Your task to perform on an android device: open a bookmark in the chrome app Image 0: 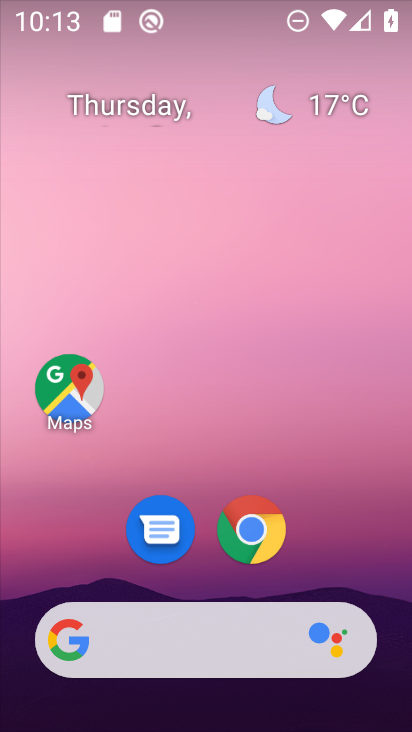
Step 0: click (255, 528)
Your task to perform on an android device: open a bookmark in the chrome app Image 1: 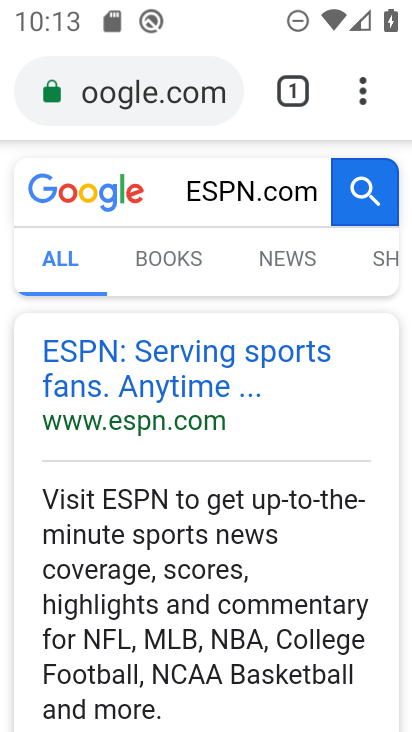
Step 1: click (361, 89)
Your task to perform on an android device: open a bookmark in the chrome app Image 2: 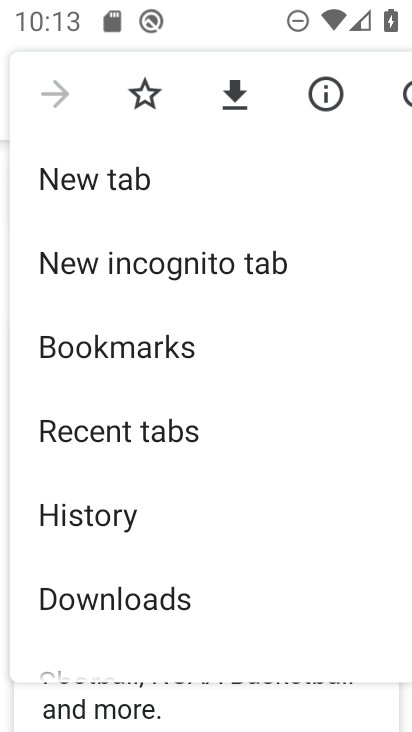
Step 2: click (93, 349)
Your task to perform on an android device: open a bookmark in the chrome app Image 3: 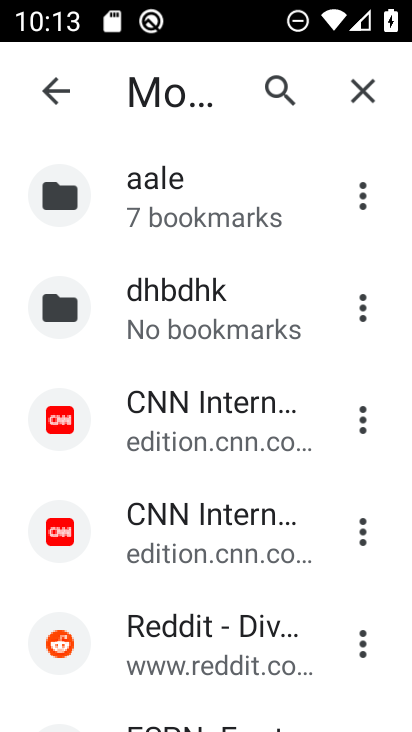
Step 3: click (171, 312)
Your task to perform on an android device: open a bookmark in the chrome app Image 4: 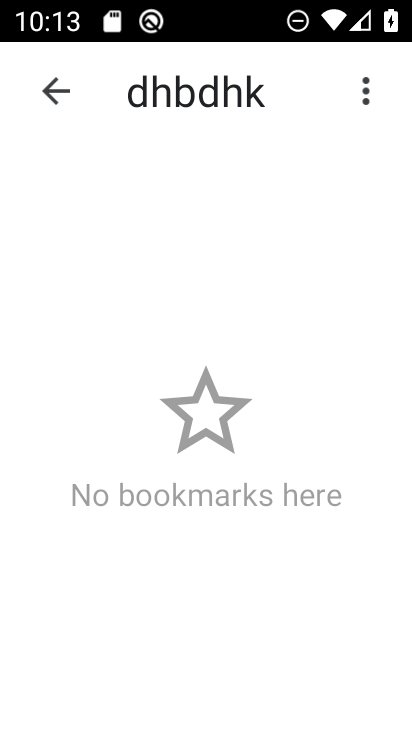
Step 4: click (62, 96)
Your task to perform on an android device: open a bookmark in the chrome app Image 5: 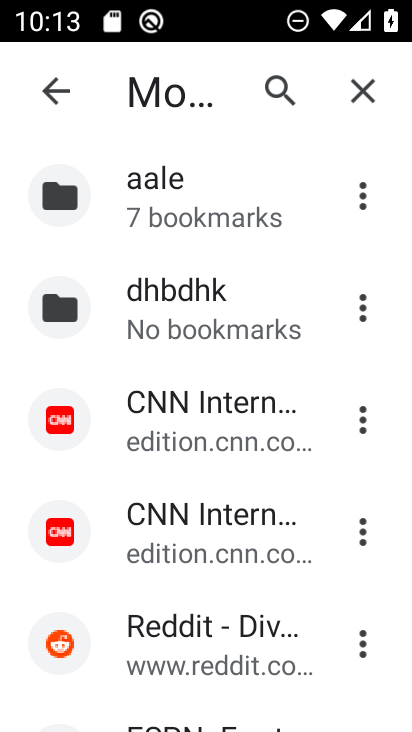
Step 5: click (205, 540)
Your task to perform on an android device: open a bookmark in the chrome app Image 6: 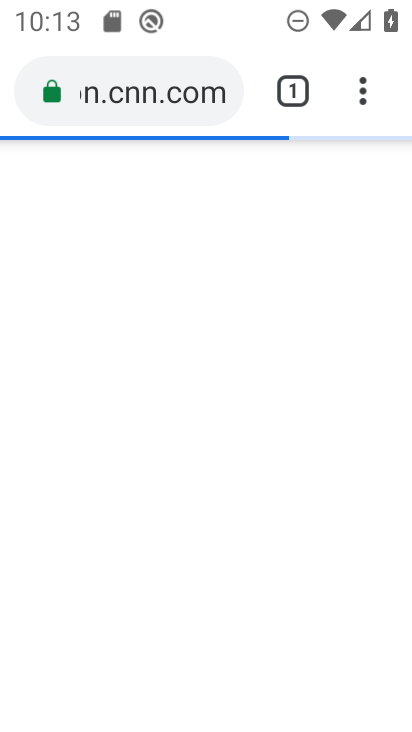
Step 6: task complete